Your task to perform on an android device: create a new album in the google photos Image 0: 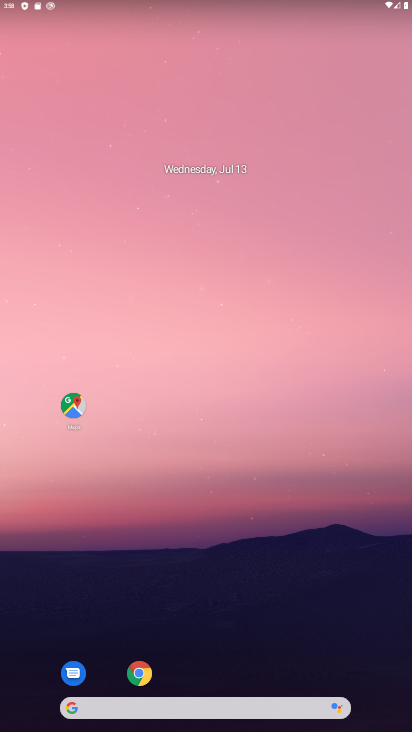
Step 0: drag from (253, 597) to (296, 74)
Your task to perform on an android device: create a new album in the google photos Image 1: 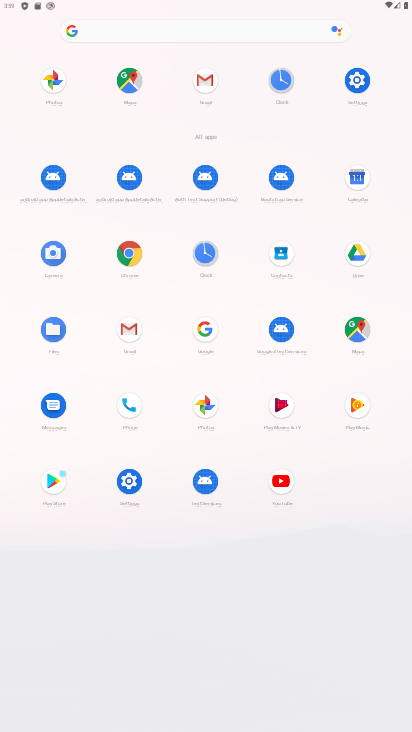
Step 1: click (201, 404)
Your task to perform on an android device: create a new album in the google photos Image 2: 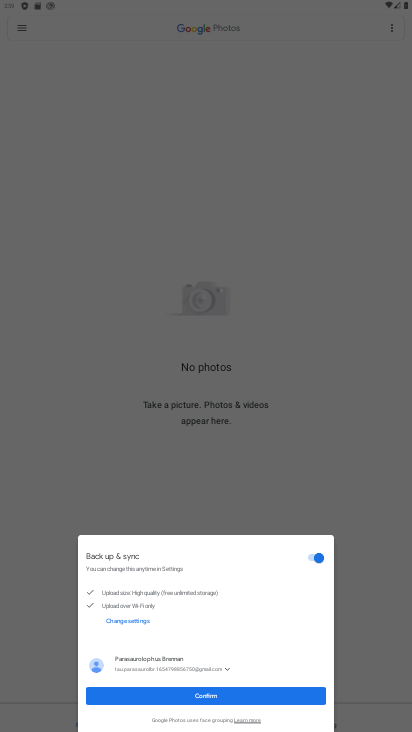
Step 2: click (190, 691)
Your task to perform on an android device: create a new album in the google photos Image 3: 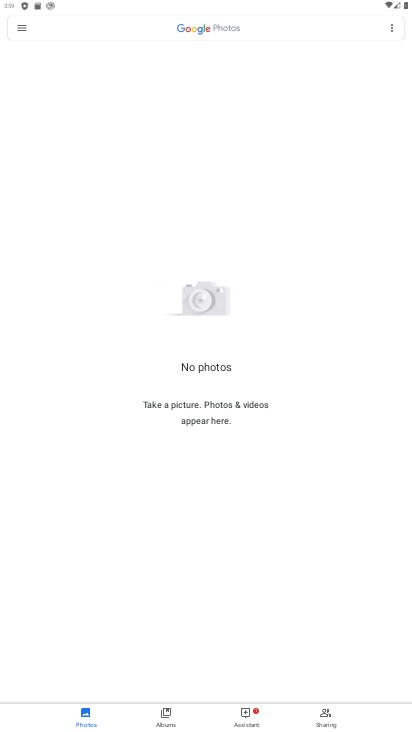
Step 3: click (190, 691)
Your task to perform on an android device: create a new album in the google photos Image 4: 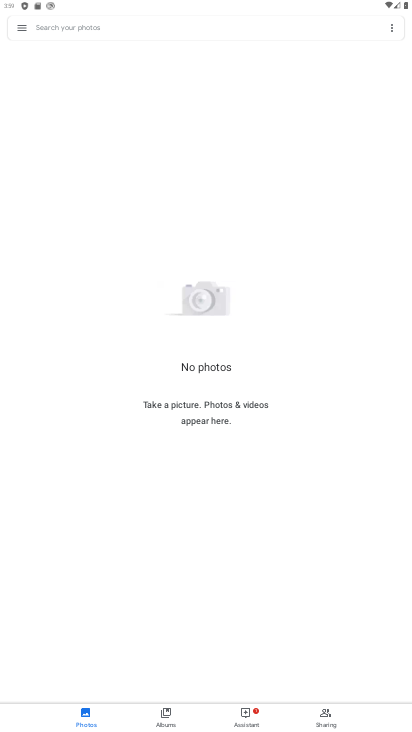
Step 4: click (153, 725)
Your task to perform on an android device: create a new album in the google photos Image 5: 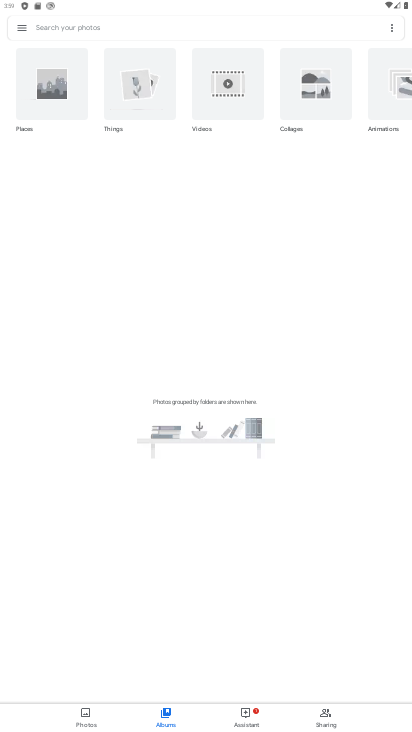
Step 5: click (389, 29)
Your task to perform on an android device: create a new album in the google photos Image 6: 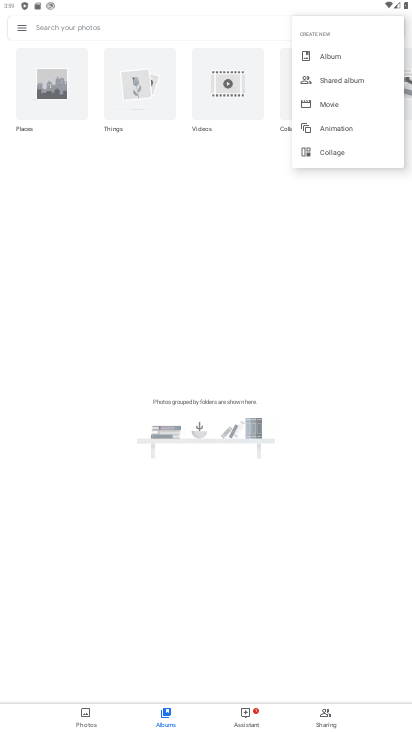
Step 6: click (352, 56)
Your task to perform on an android device: create a new album in the google photos Image 7: 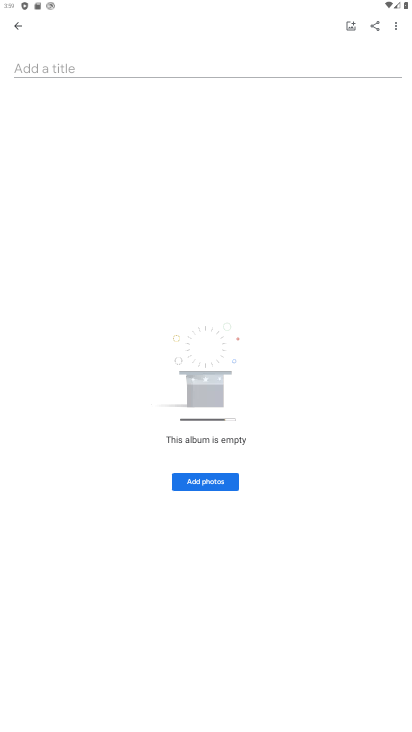
Step 7: click (204, 70)
Your task to perform on an android device: create a new album in the google photos Image 8: 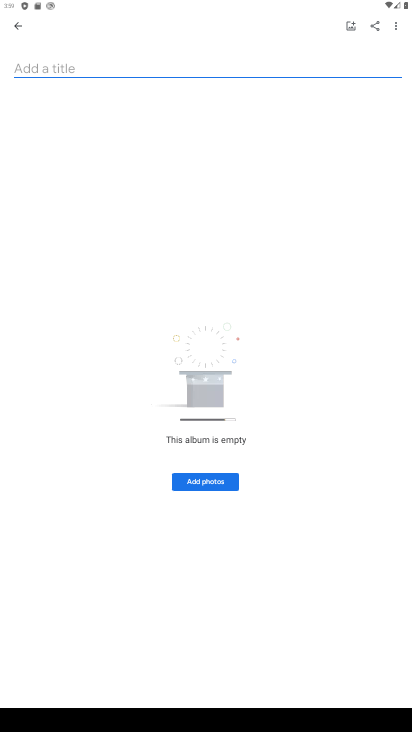
Step 8: type "mk"
Your task to perform on an android device: create a new album in the google photos Image 9: 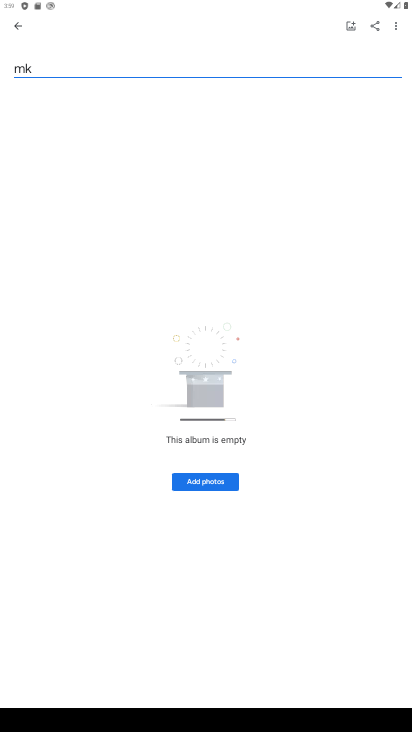
Step 9: click (217, 476)
Your task to perform on an android device: create a new album in the google photos Image 10: 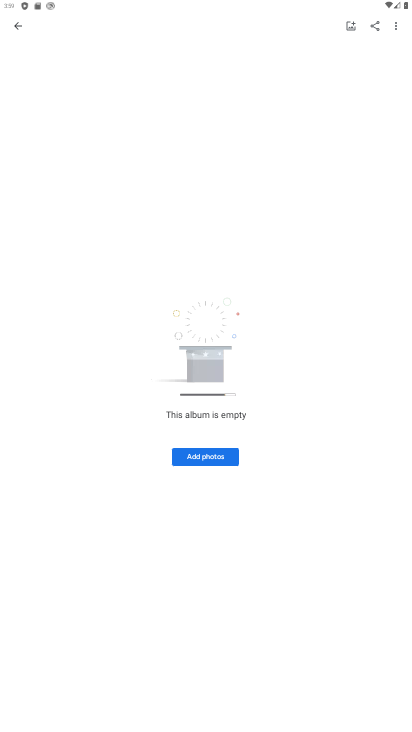
Step 10: click (216, 453)
Your task to perform on an android device: create a new album in the google photos Image 11: 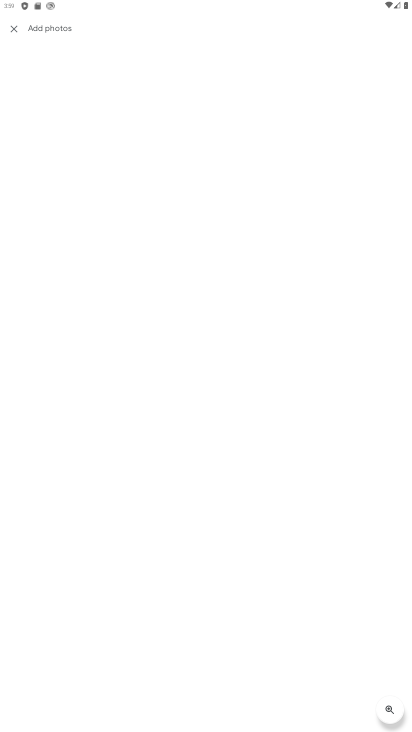
Step 11: task complete